Your task to perform on an android device: Add usb-b to the cart on newegg.com, then select checkout. Image 0: 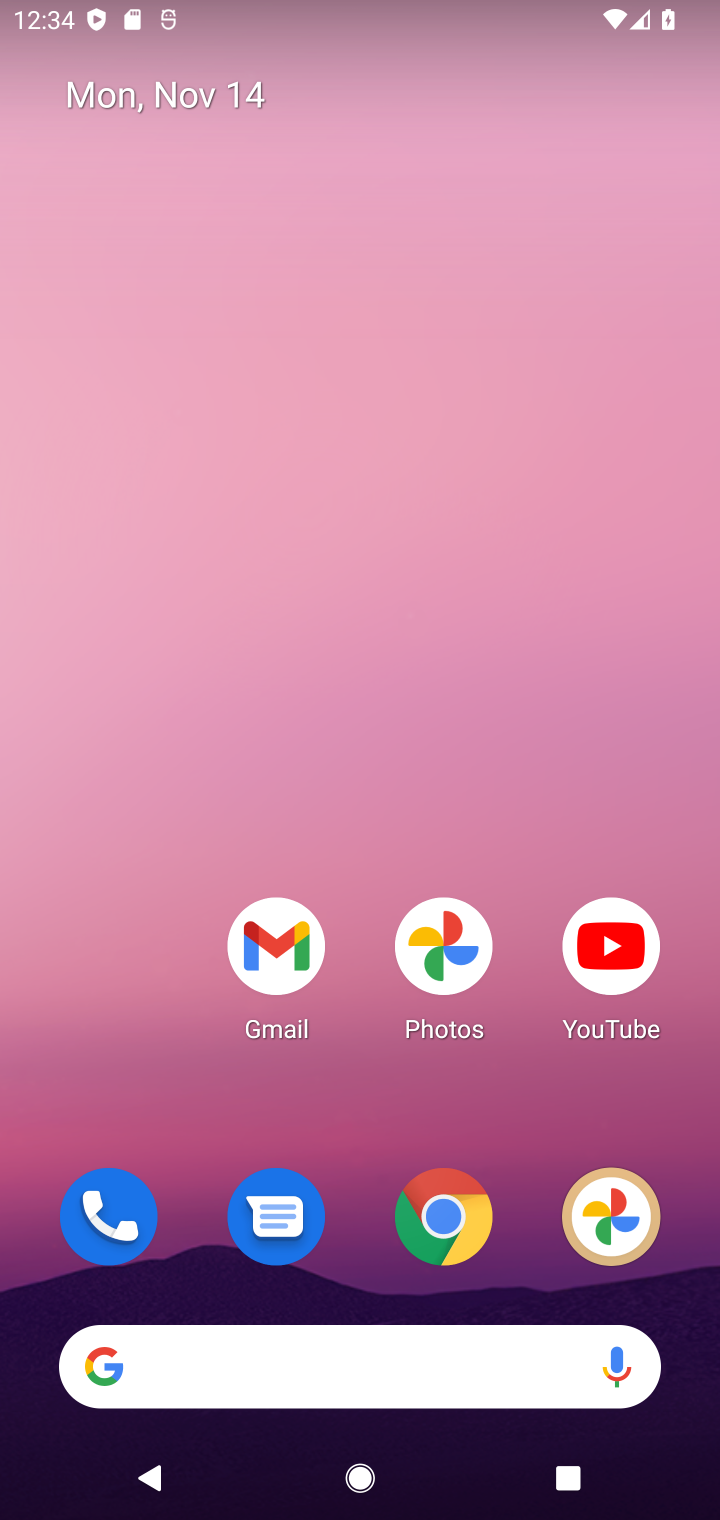
Step 0: click (443, 1237)
Your task to perform on an android device: Add usb-b to the cart on newegg.com, then select checkout. Image 1: 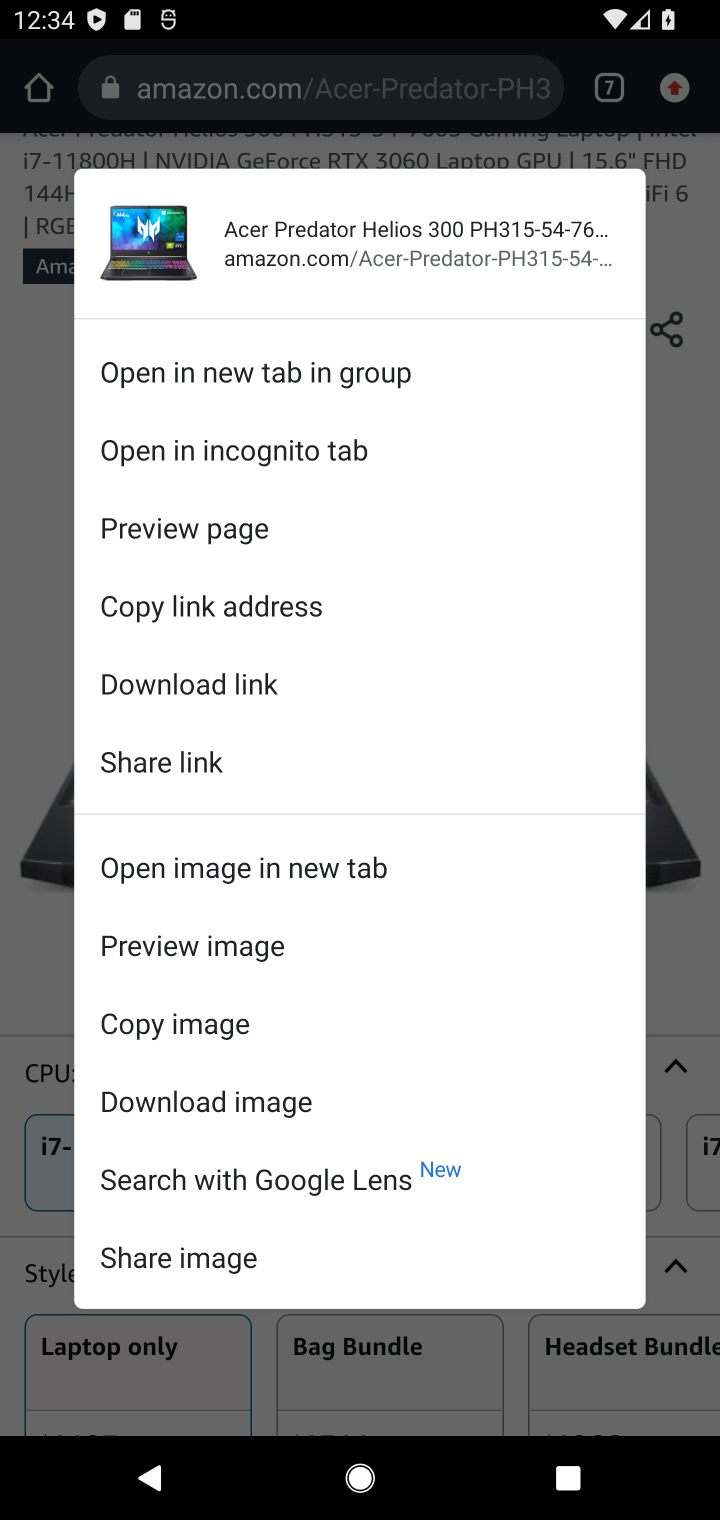
Step 1: click (706, 276)
Your task to perform on an android device: Add usb-b to the cart on newegg.com, then select checkout. Image 2: 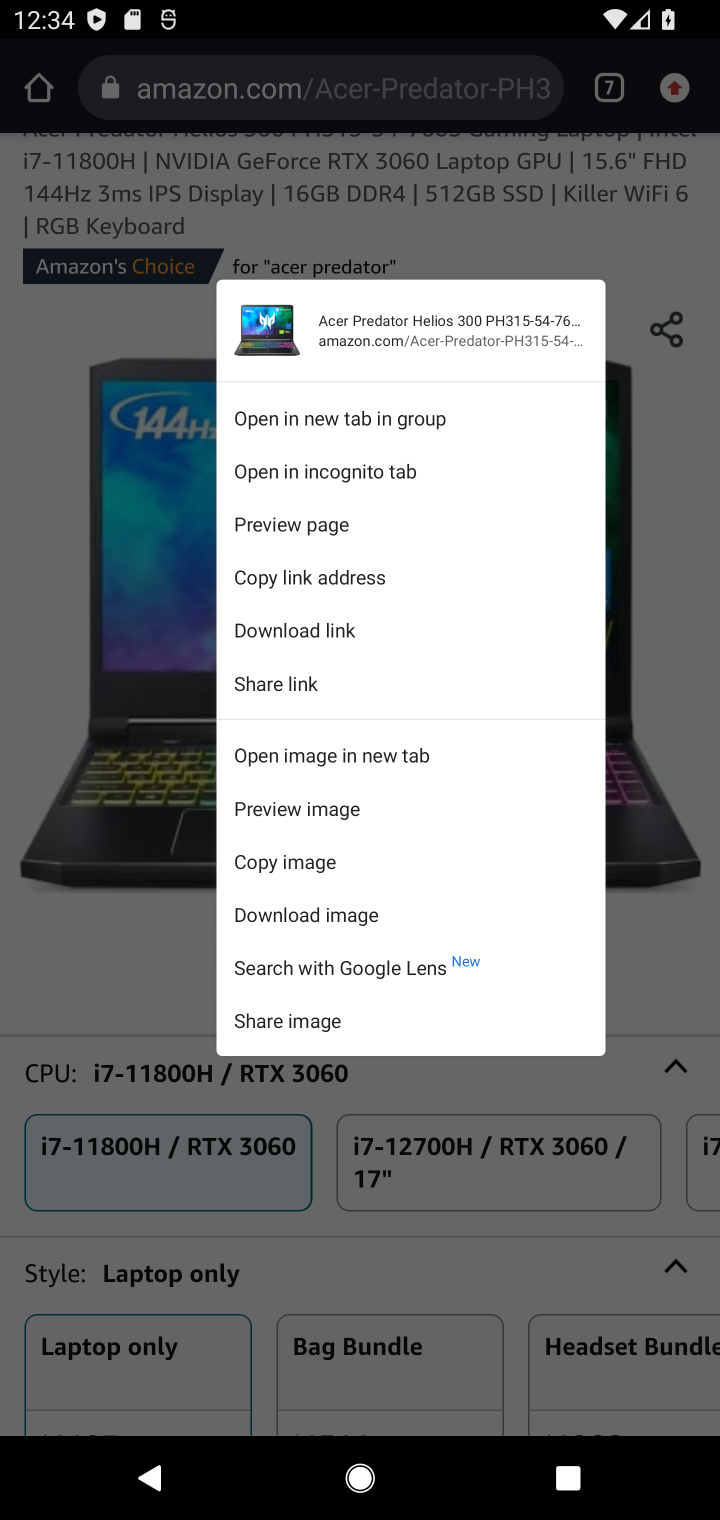
Step 2: click (616, 88)
Your task to perform on an android device: Add usb-b to the cart on newegg.com, then select checkout. Image 3: 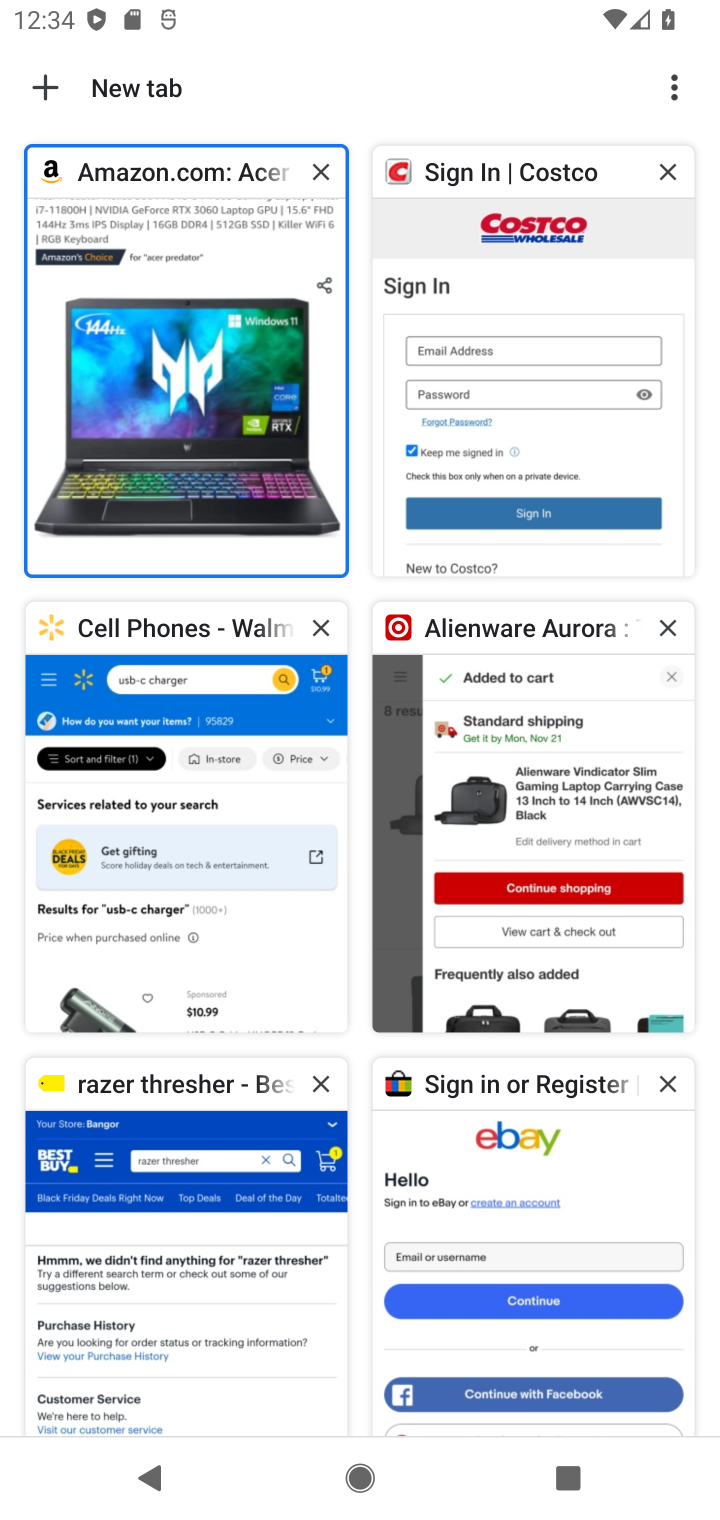
Step 3: click (48, 82)
Your task to perform on an android device: Add usb-b to the cart on newegg.com, then select checkout. Image 4: 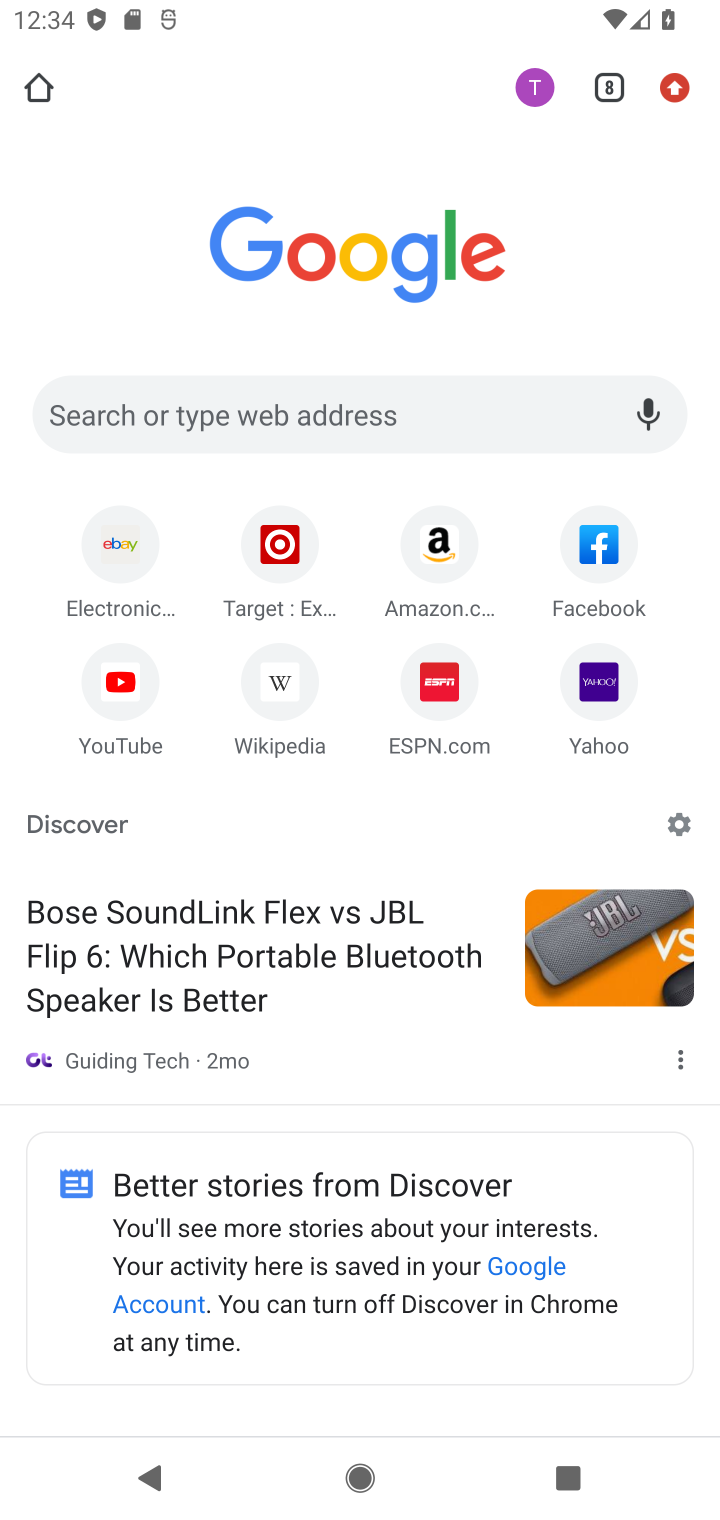
Step 4: click (124, 411)
Your task to perform on an android device: Add usb-b to the cart on newegg.com, then select checkout. Image 5: 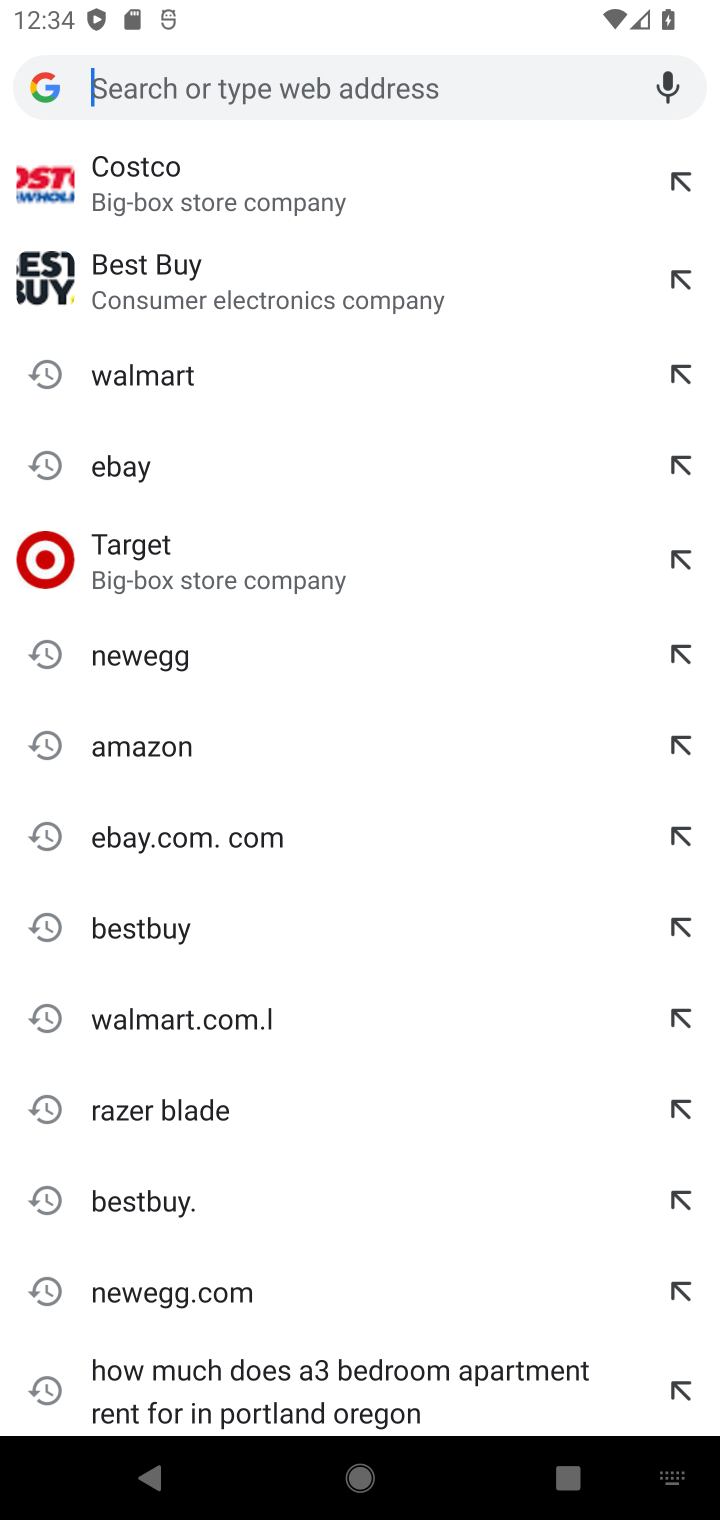
Step 5: click (243, 664)
Your task to perform on an android device: Add usb-b to the cart on newegg.com, then select checkout. Image 6: 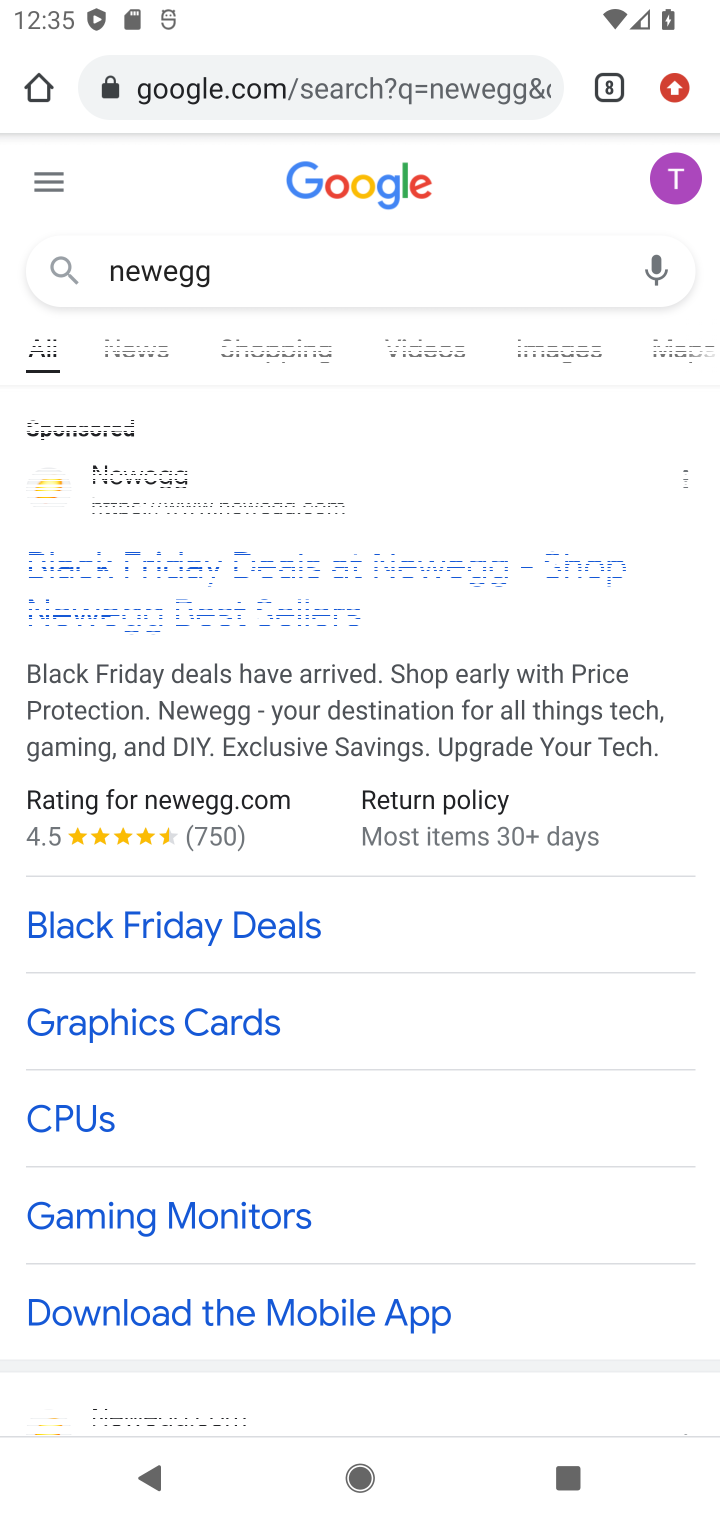
Step 6: click (248, 573)
Your task to perform on an android device: Add usb-b to the cart on newegg.com, then select checkout. Image 7: 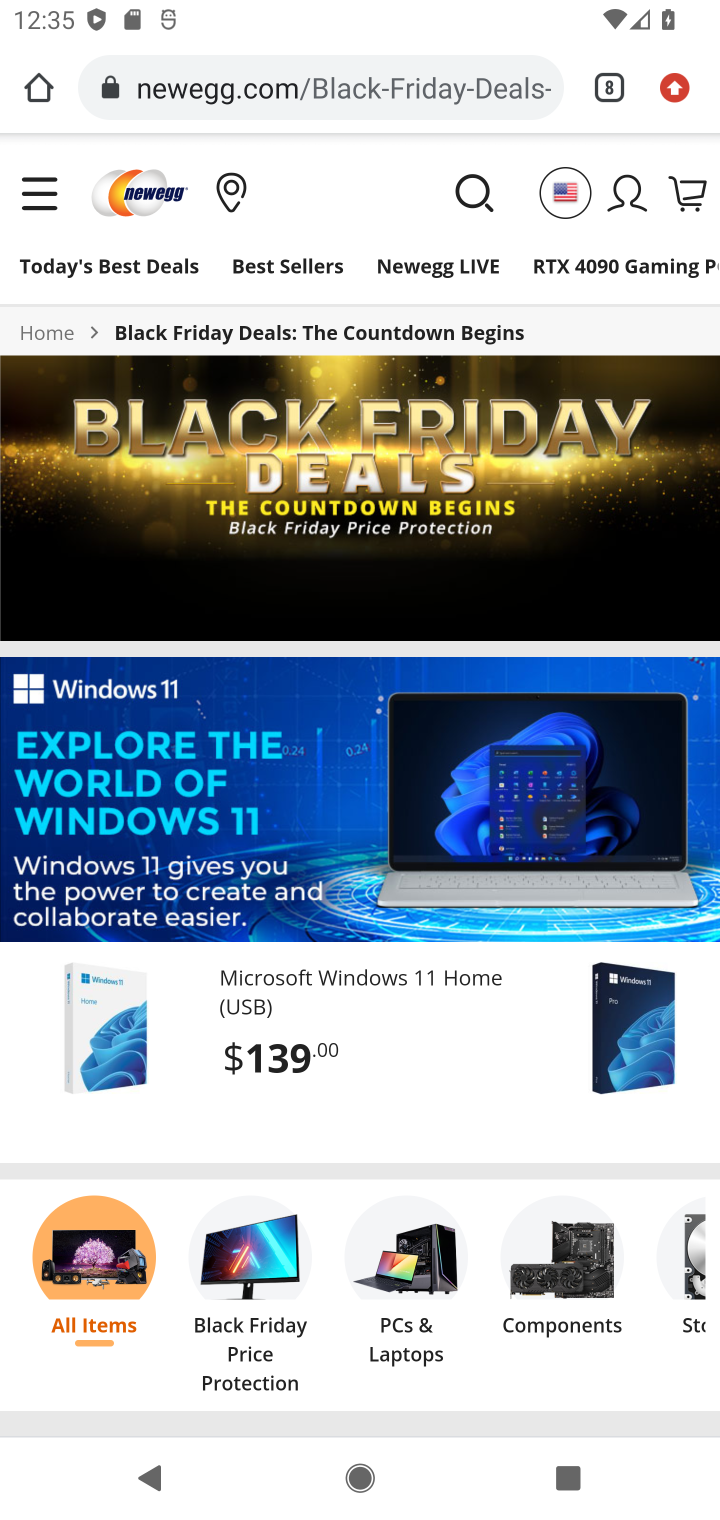
Step 7: click (474, 187)
Your task to perform on an android device: Add usb-b to the cart on newegg.com, then select checkout. Image 8: 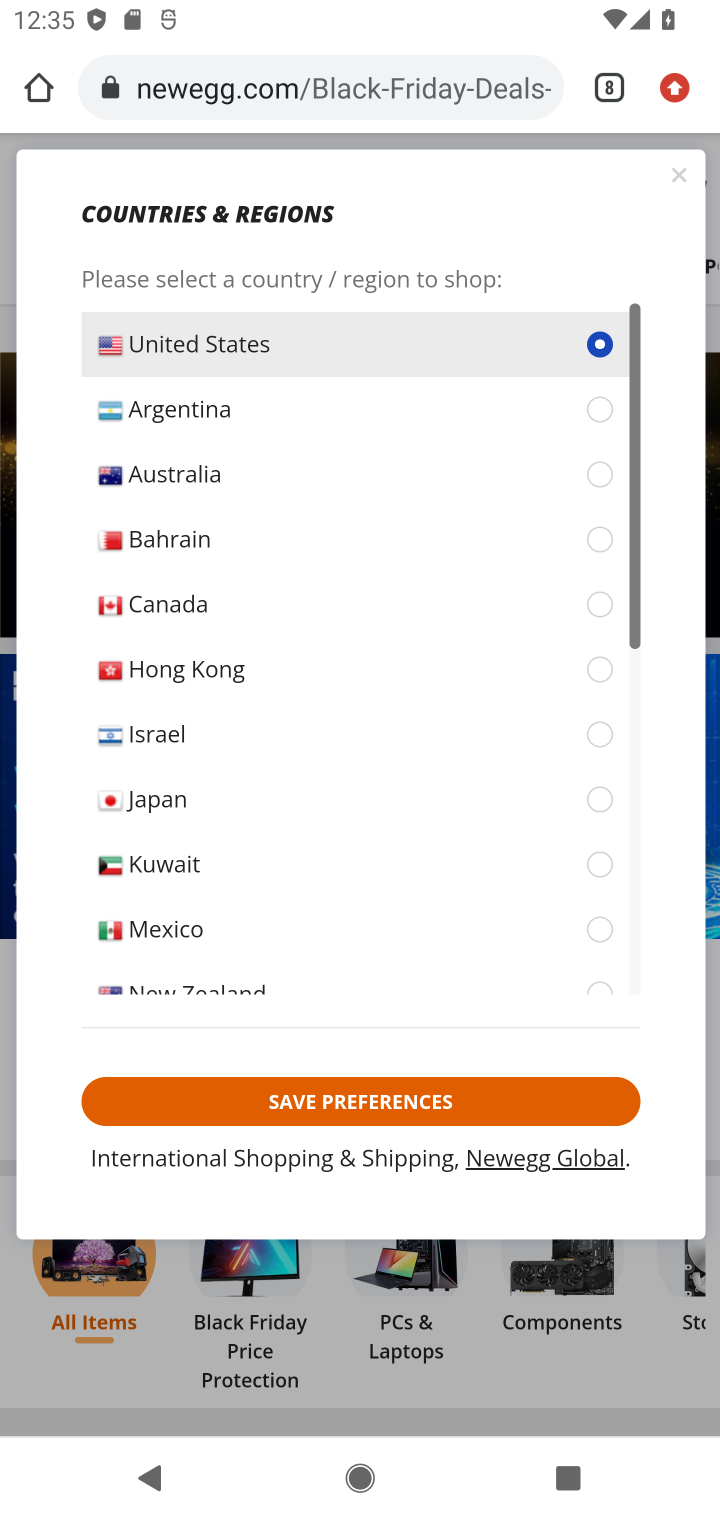
Step 8: type "usb-b"
Your task to perform on an android device: Add usb-b to the cart on newegg.com, then select checkout. Image 9: 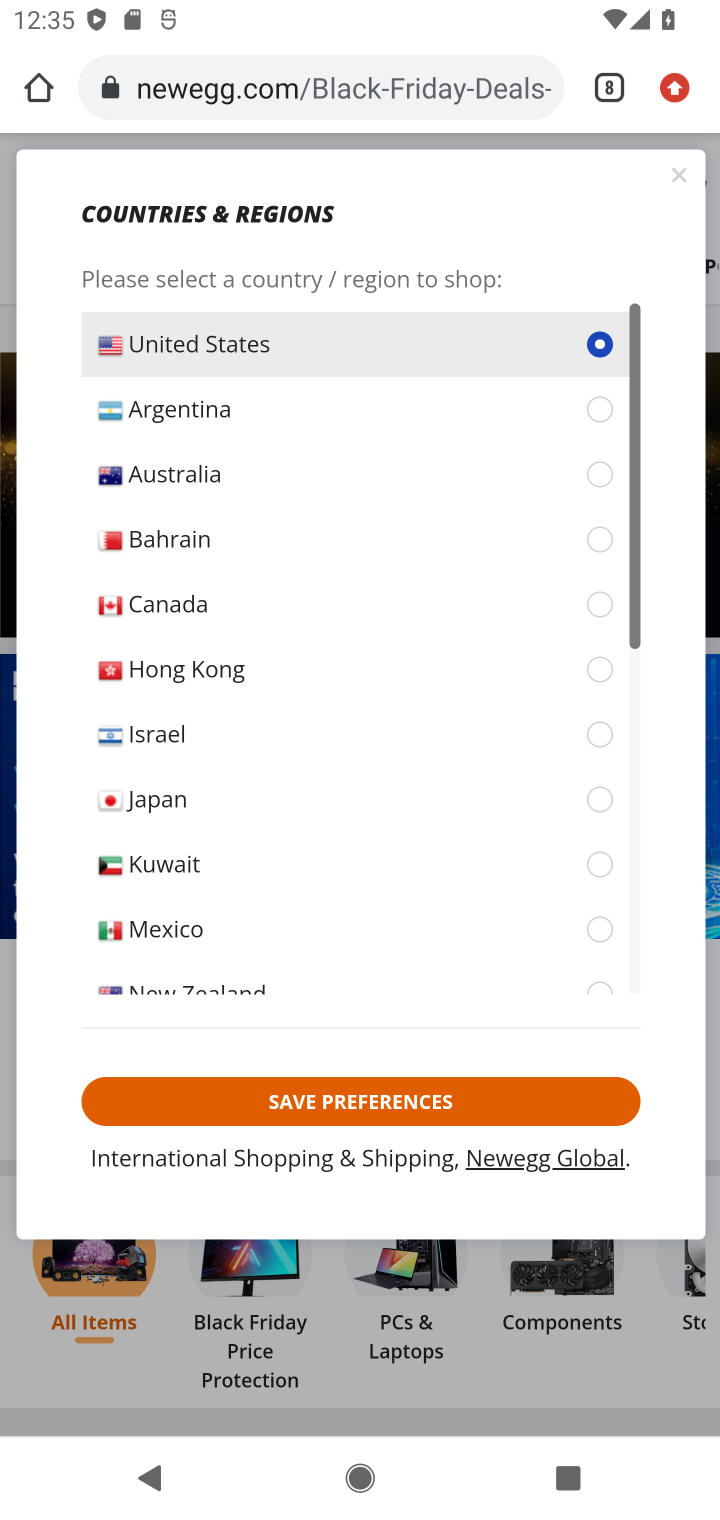
Step 9: click (407, 1095)
Your task to perform on an android device: Add usb-b to the cart on newegg.com, then select checkout. Image 10: 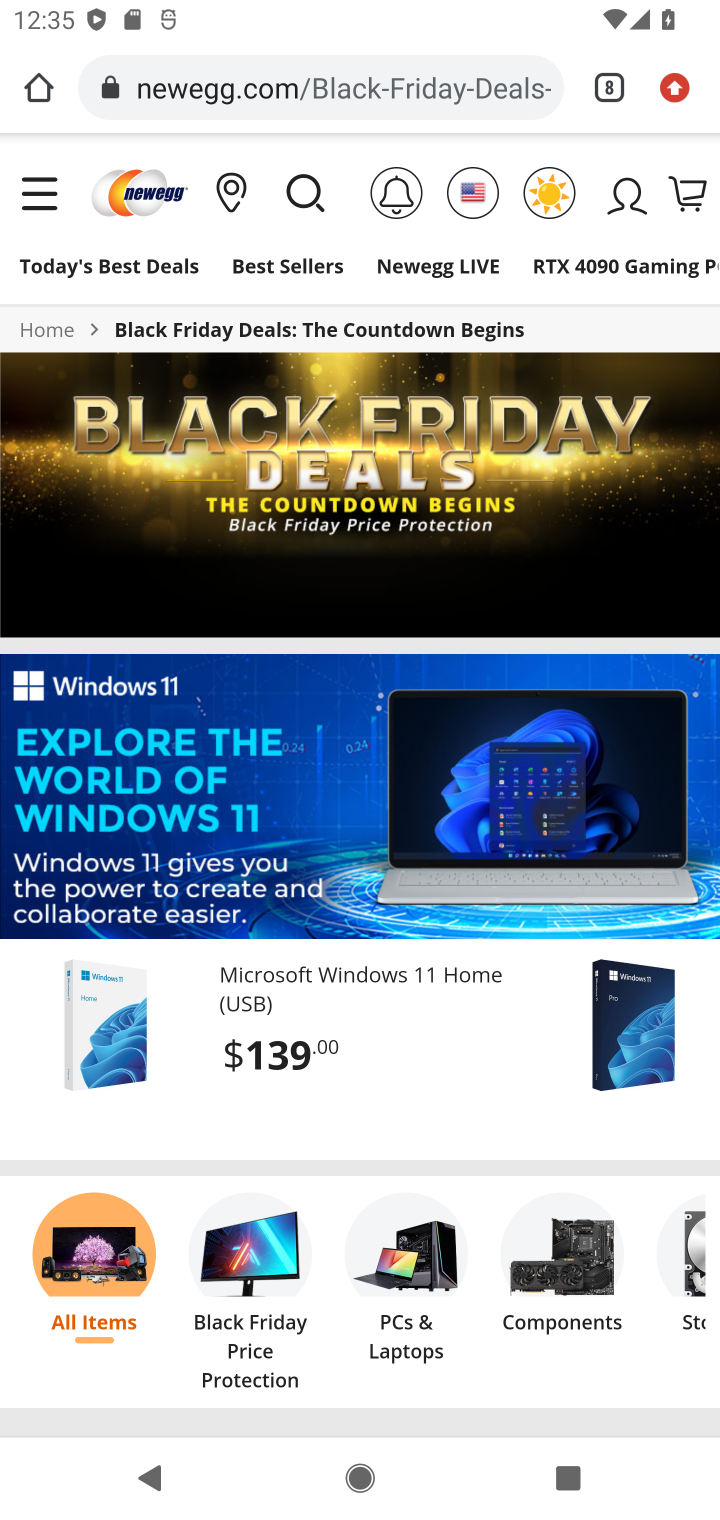
Step 10: click (307, 196)
Your task to perform on an android device: Add usb-b to the cart on newegg.com, then select checkout. Image 11: 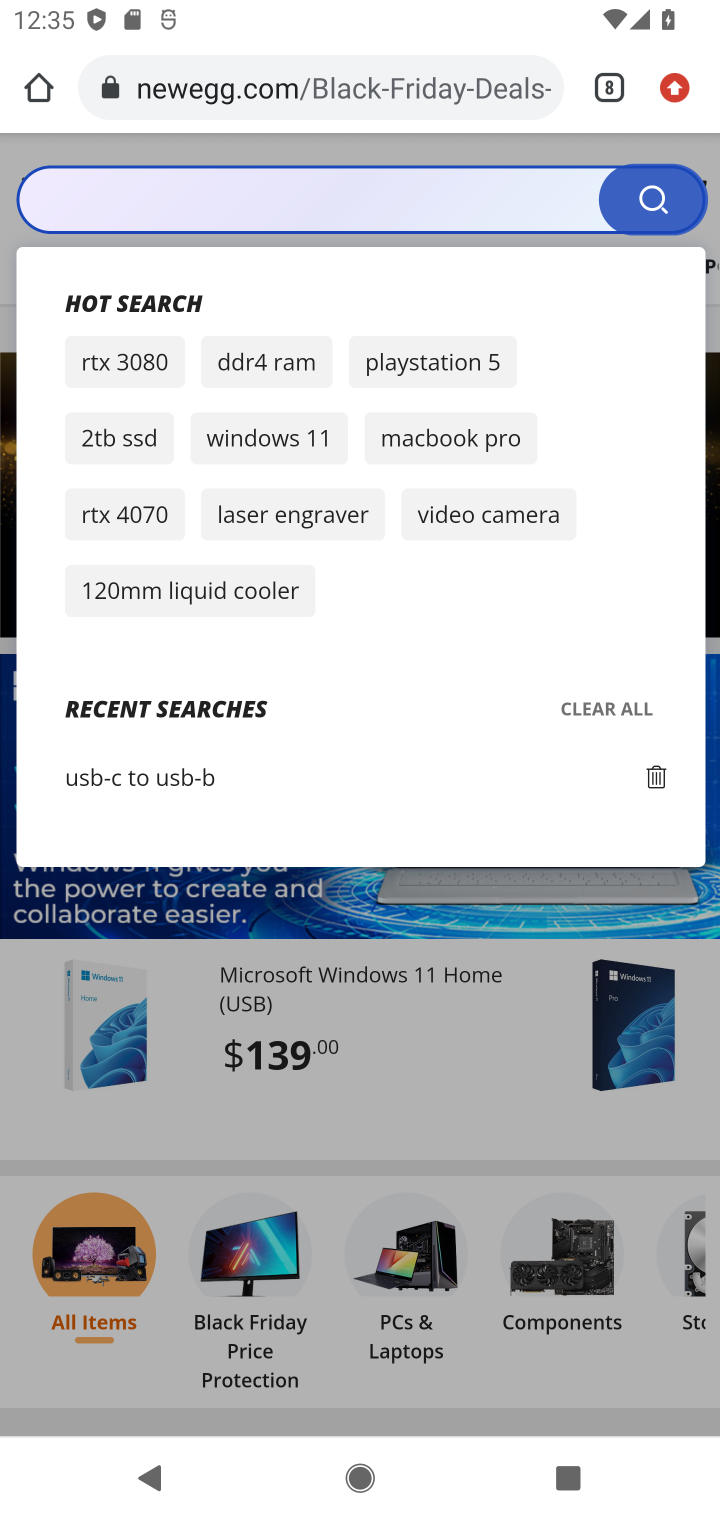
Step 11: type "usb-b"
Your task to perform on an android device: Add usb-b to the cart on newegg.com, then select checkout. Image 12: 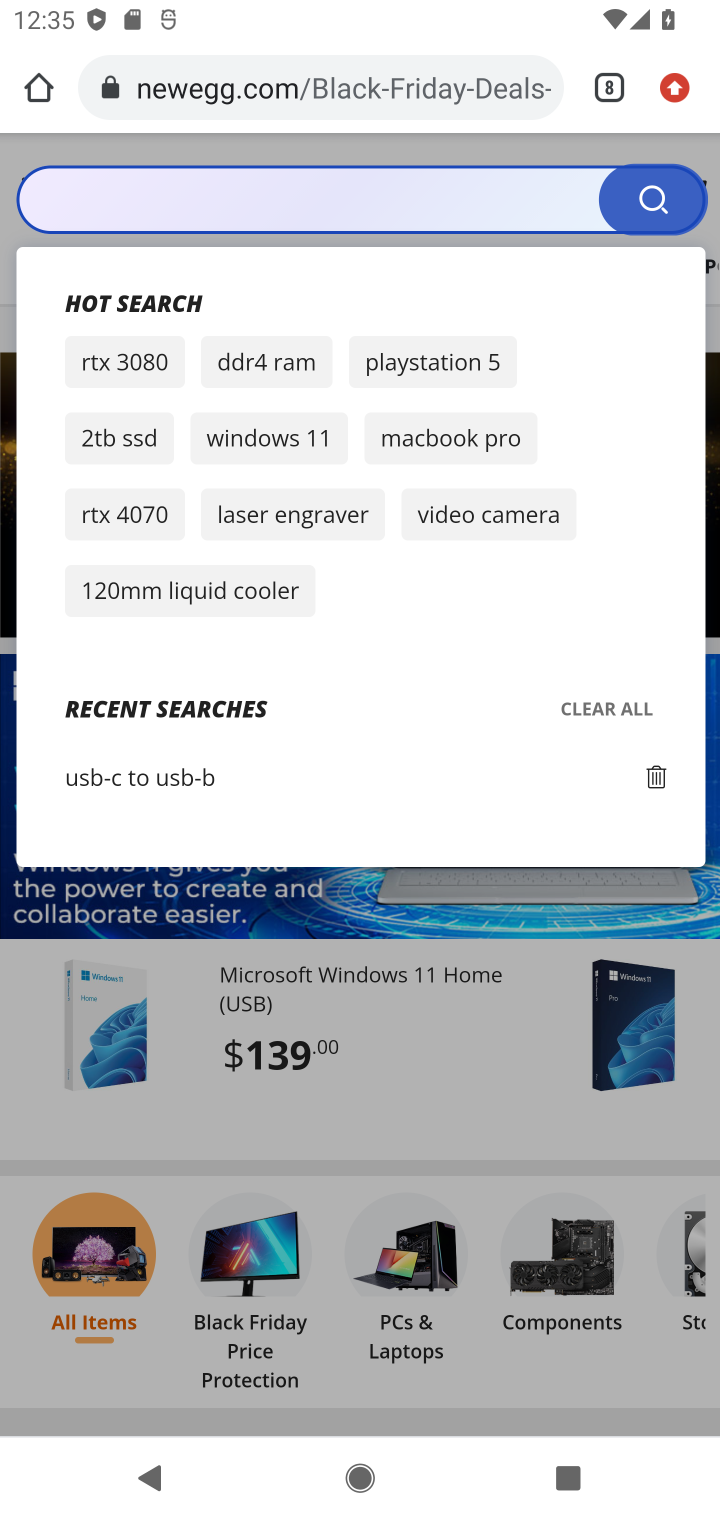
Step 12: click (131, 192)
Your task to perform on an android device: Add usb-b to the cart on newegg.com, then select checkout. Image 13: 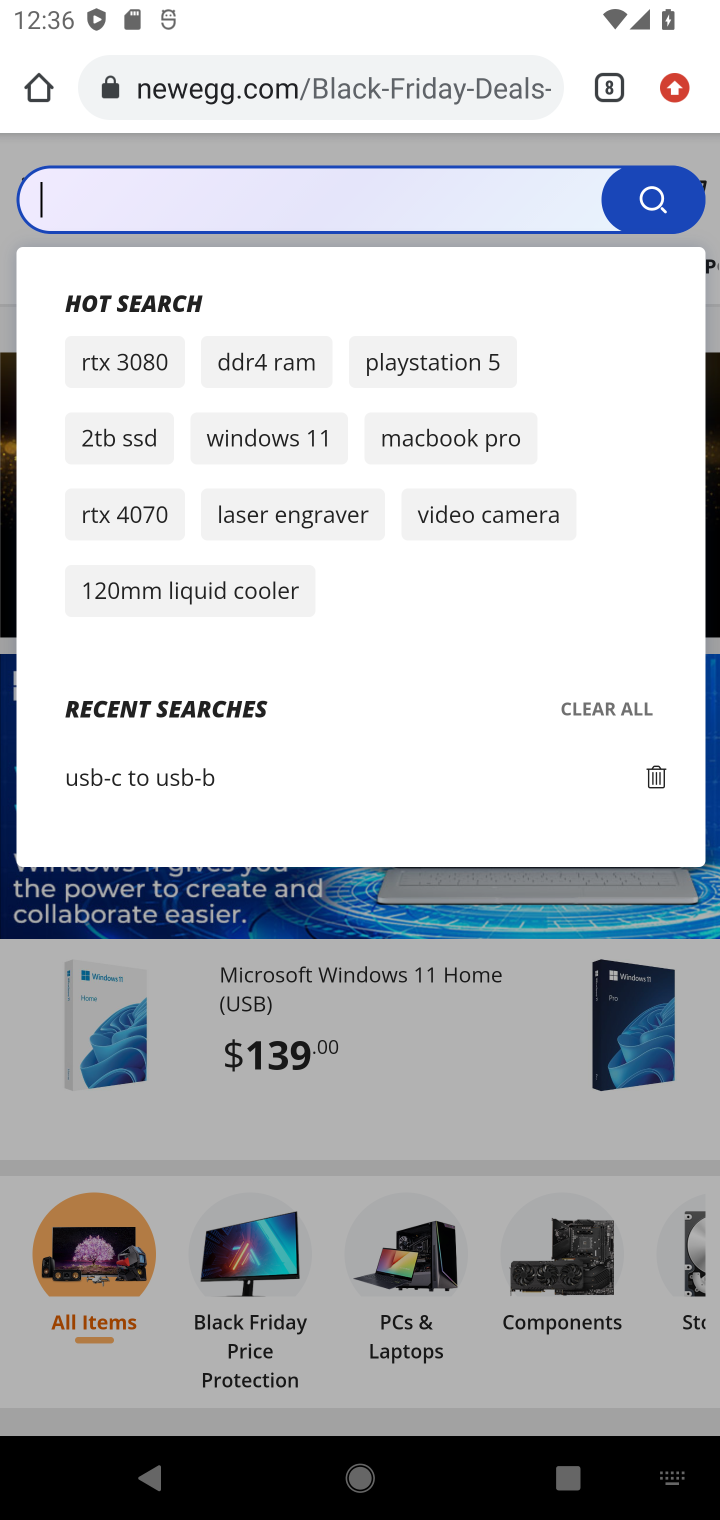
Step 13: type "usb-b"
Your task to perform on an android device: Add usb-b to the cart on newegg.com, then select checkout. Image 14: 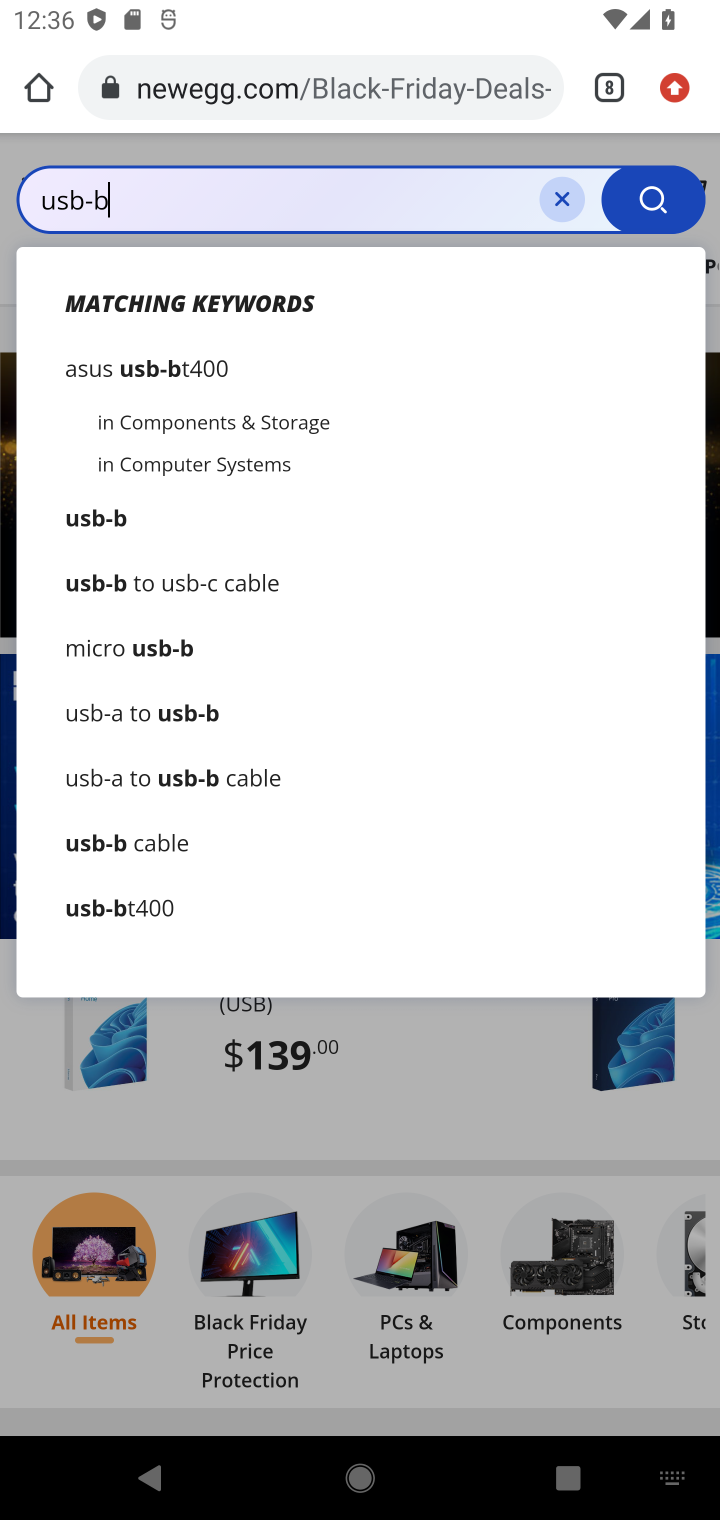
Step 14: click (653, 191)
Your task to perform on an android device: Add usb-b to the cart on newegg.com, then select checkout. Image 15: 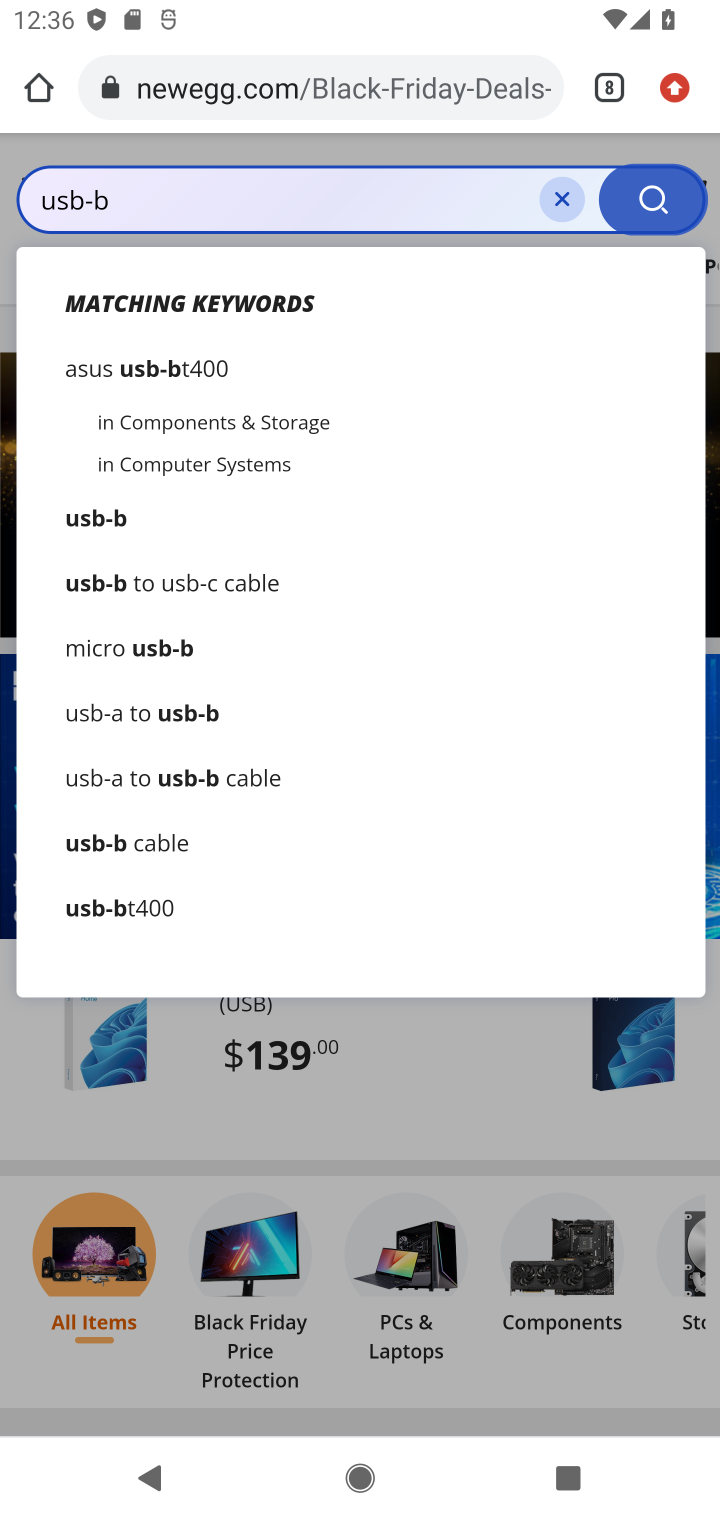
Step 15: click (648, 204)
Your task to perform on an android device: Add usb-b to the cart on newegg.com, then select checkout. Image 16: 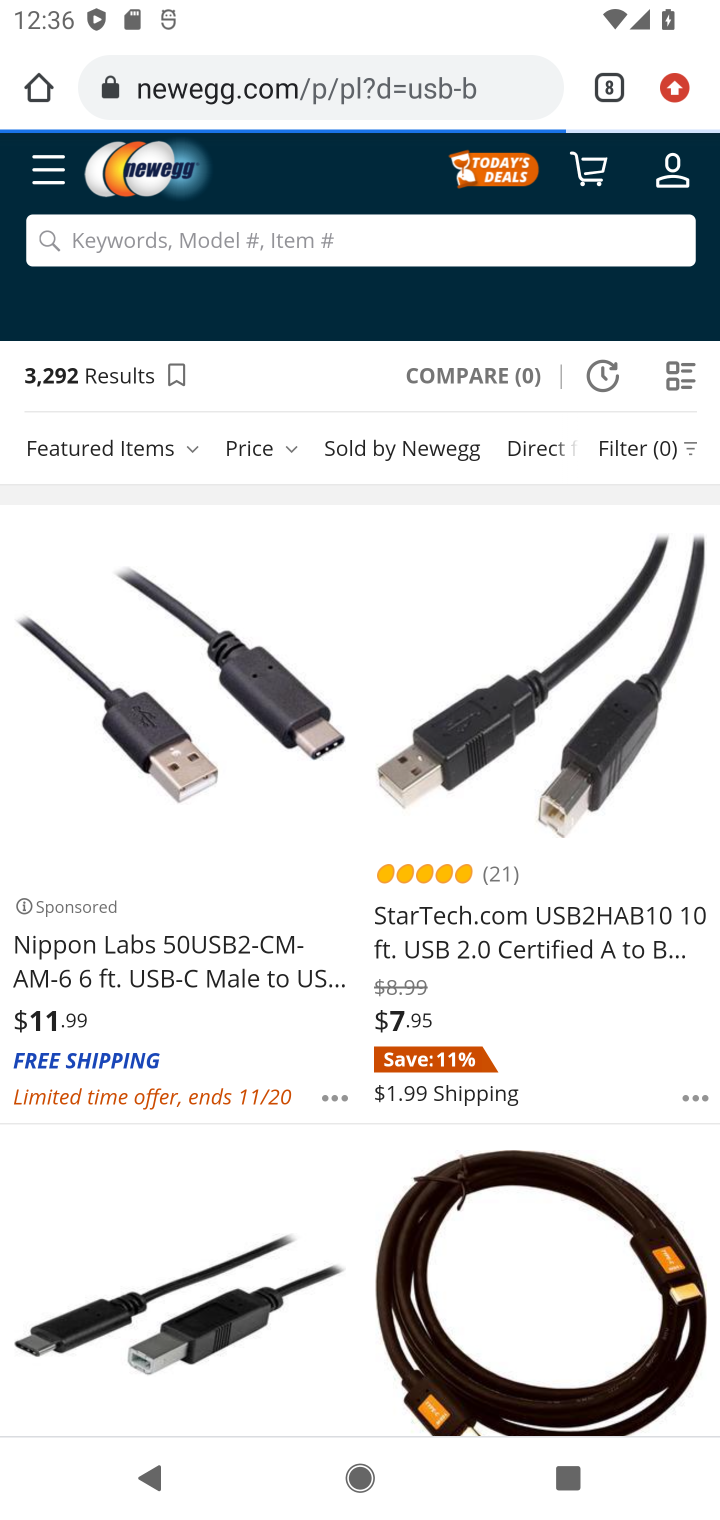
Step 16: click (589, 934)
Your task to perform on an android device: Add usb-b to the cart on newegg.com, then select checkout. Image 17: 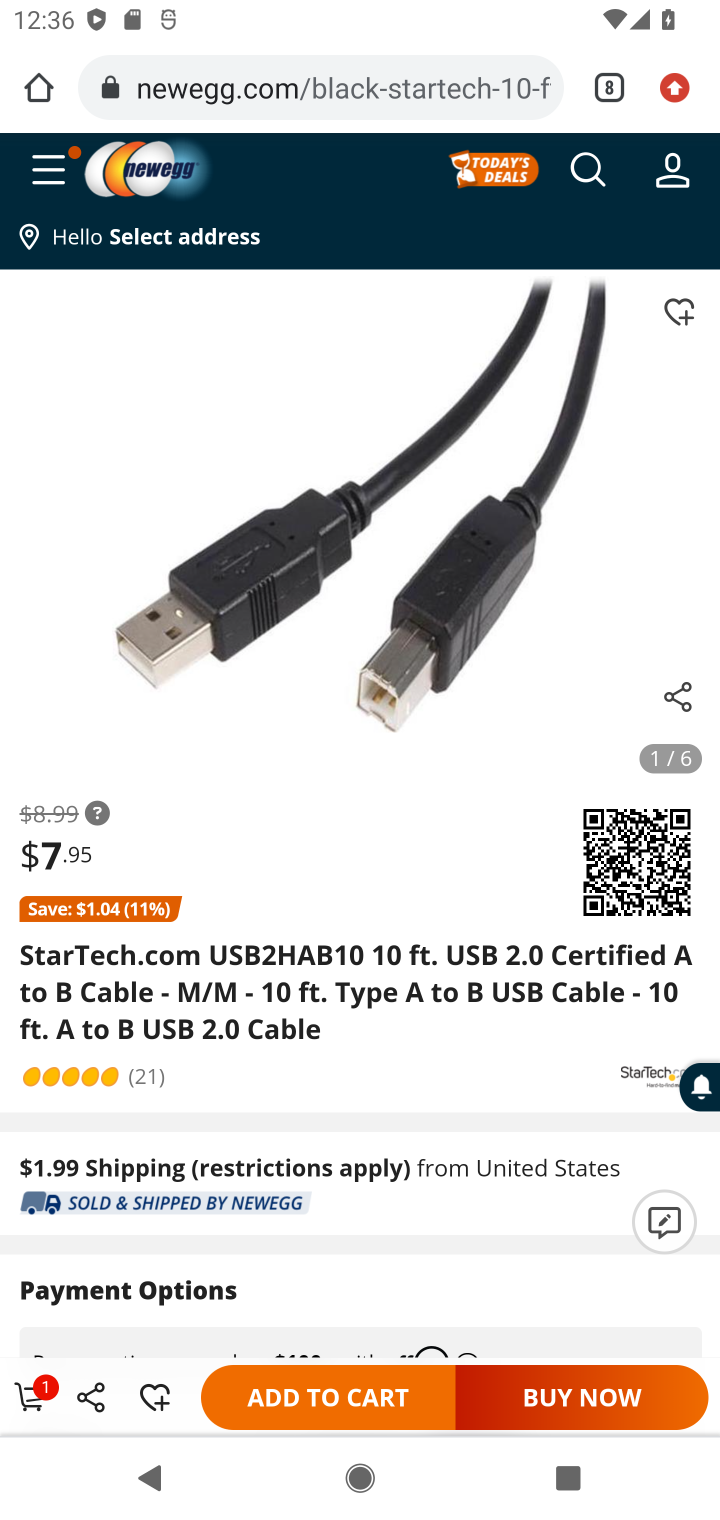
Step 17: click (347, 1401)
Your task to perform on an android device: Add usb-b to the cart on newegg.com, then select checkout. Image 18: 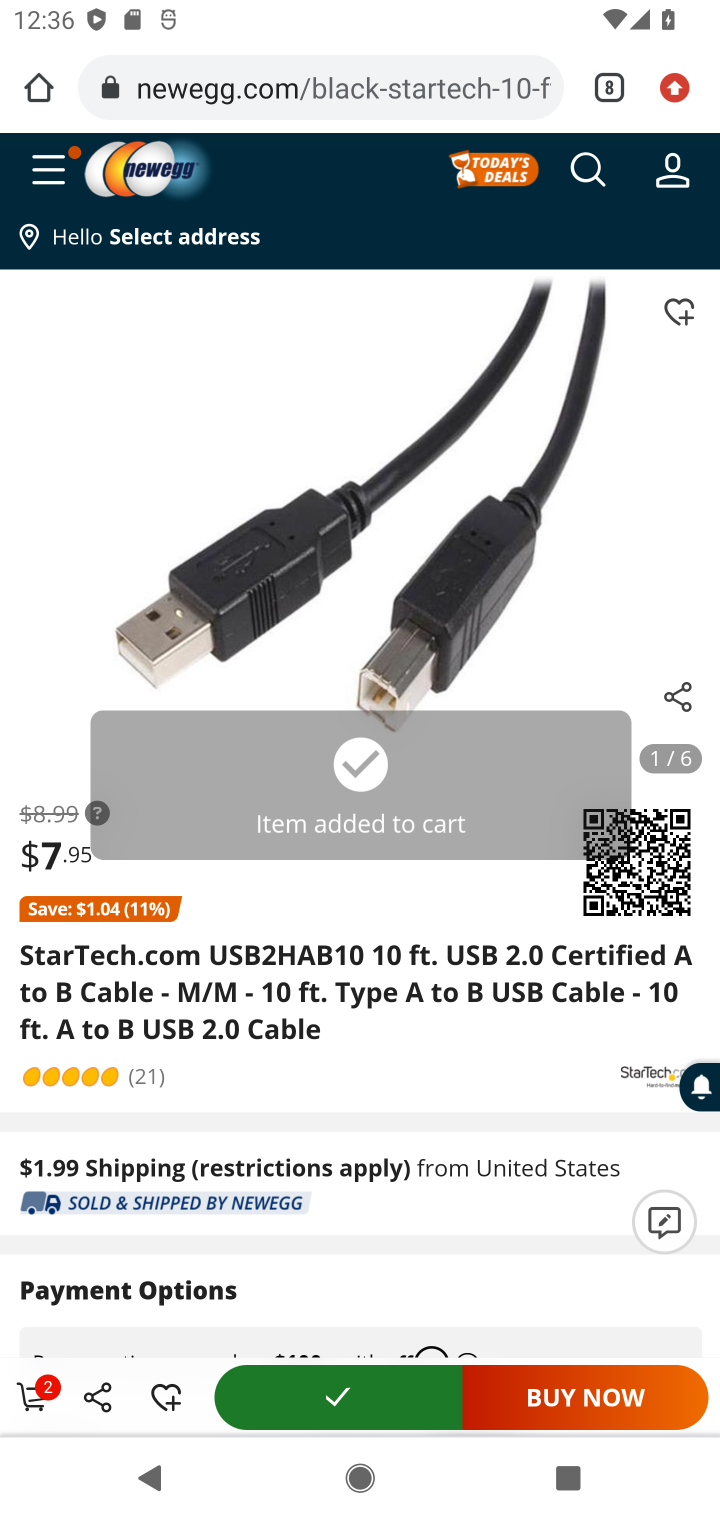
Step 18: click (44, 1391)
Your task to perform on an android device: Add usb-b to the cart on newegg.com, then select checkout. Image 19: 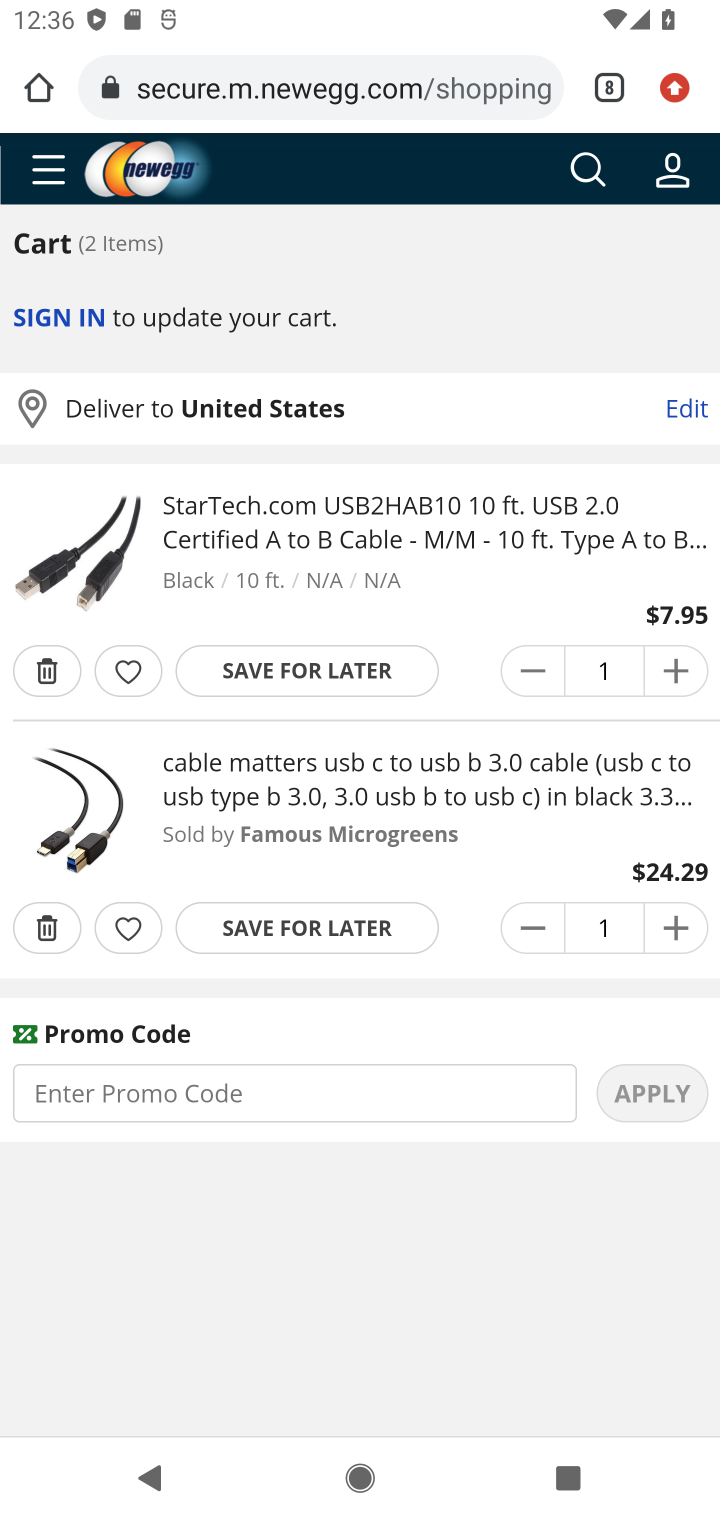
Step 19: click (433, 1256)
Your task to perform on an android device: Add usb-b to the cart on newegg.com, then select checkout. Image 20: 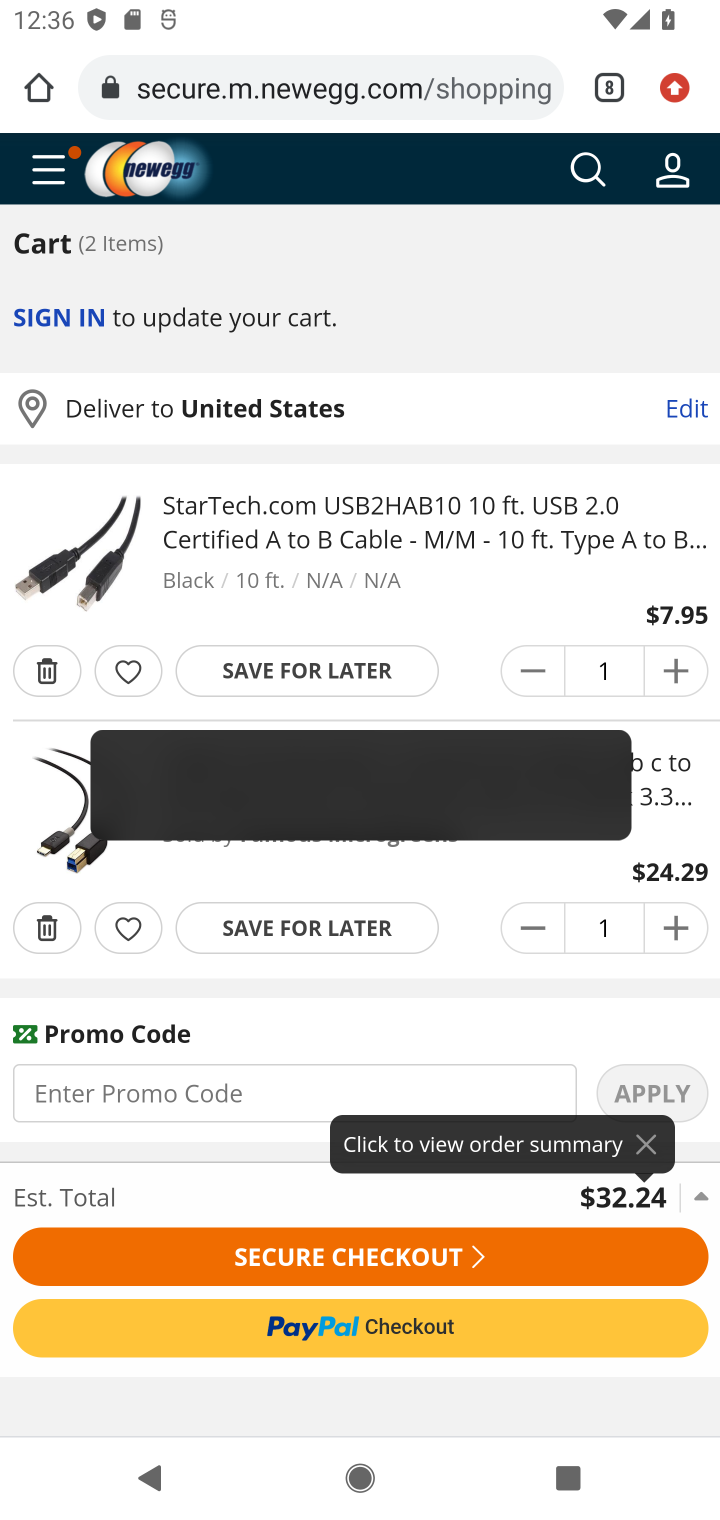
Step 20: click (433, 1256)
Your task to perform on an android device: Add usb-b to the cart on newegg.com, then select checkout. Image 21: 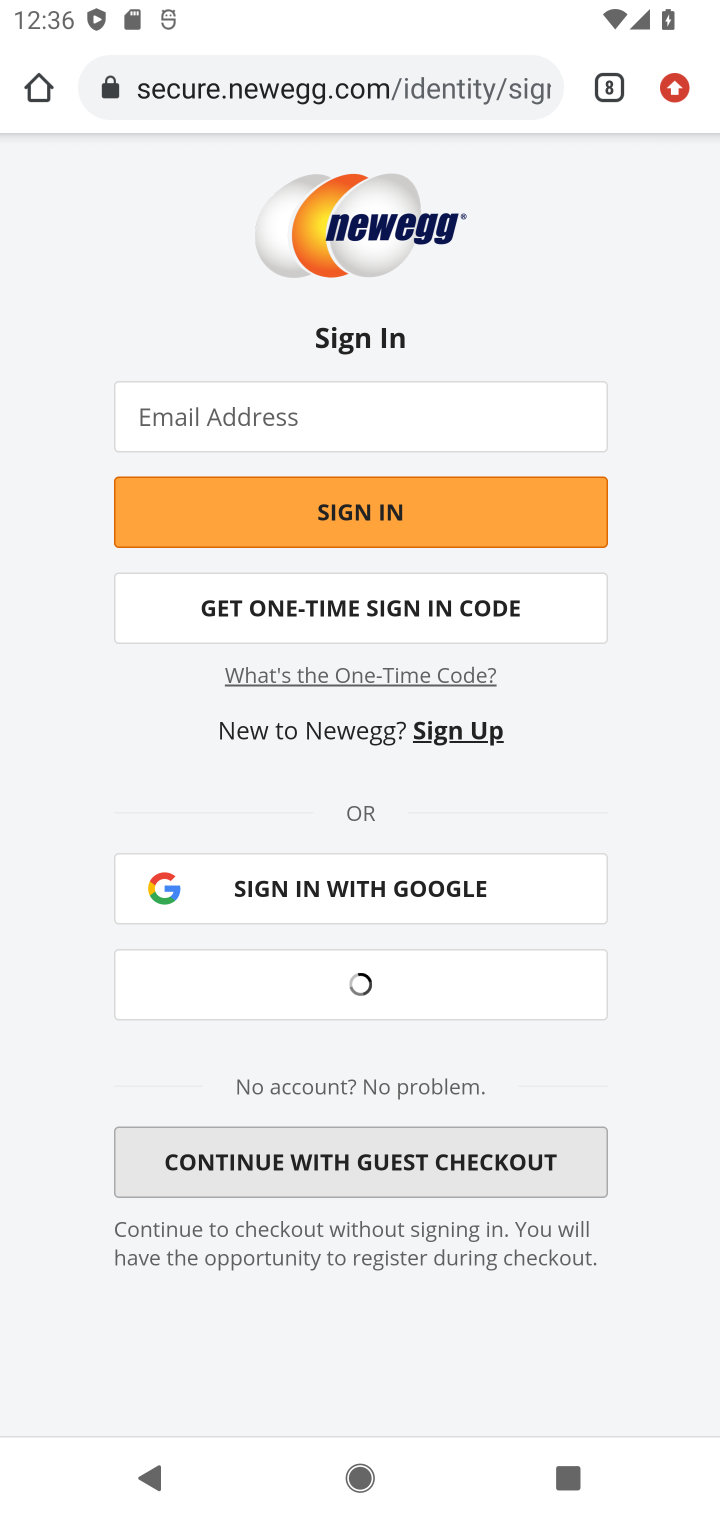
Step 21: task complete